Your task to perform on an android device: find photos in the google photos app Image 0: 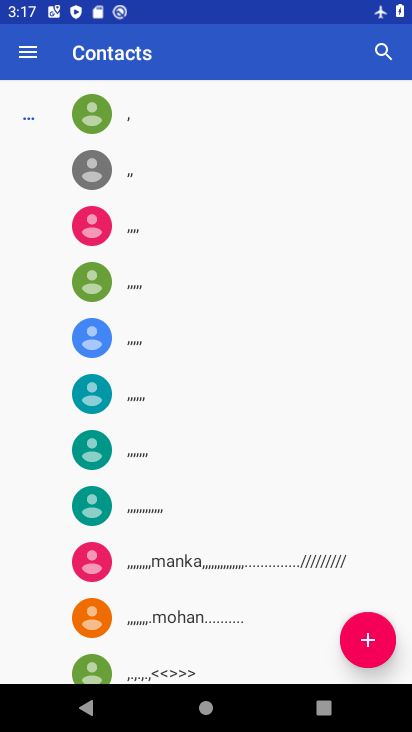
Step 0: press home button
Your task to perform on an android device: find photos in the google photos app Image 1: 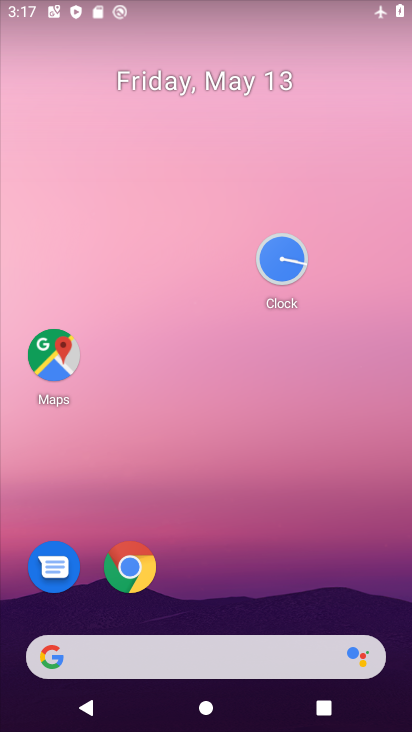
Step 1: drag from (266, 620) to (281, 160)
Your task to perform on an android device: find photos in the google photos app Image 2: 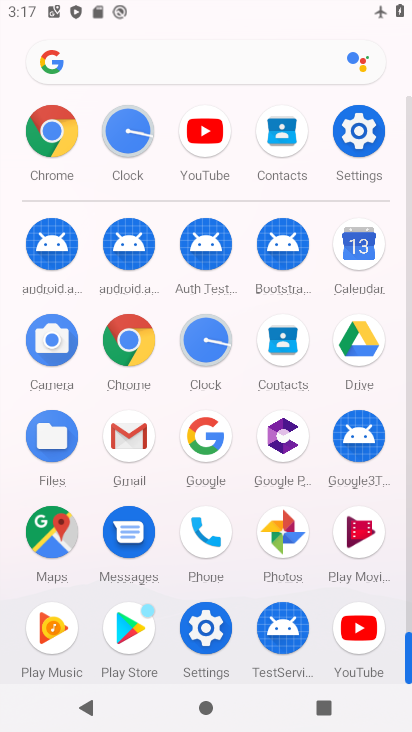
Step 2: click (356, 619)
Your task to perform on an android device: find photos in the google photos app Image 3: 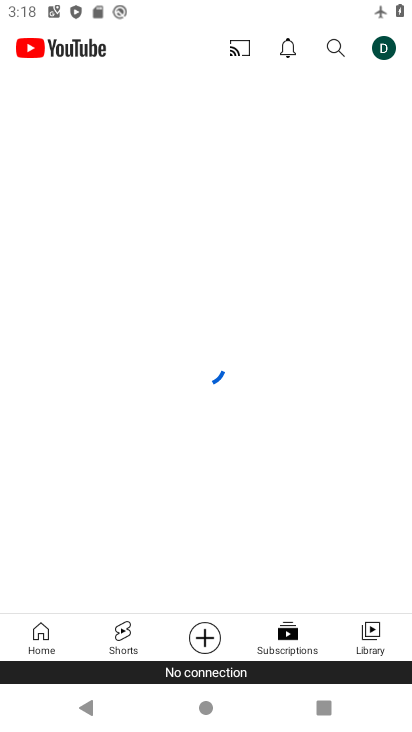
Step 3: task complete